Your task to perform on an android device: open app "Adobe Acrobat Reader: Edit PDF" (install if not already installed), go to login, and select forgot password Image 0: 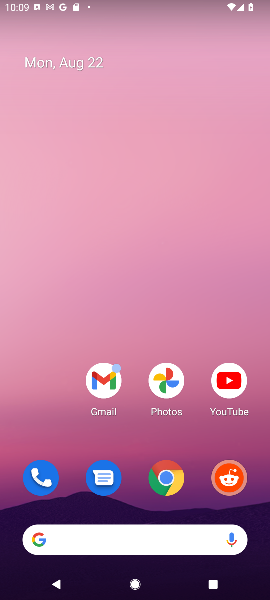
Step 0: drag from (130, 512) to (127, 80)
Your task to perform on an android device: open app "Adobe Acrobat Reader: Edit PDF" (install if not already installed), go to login, and select forgot password Image 1: 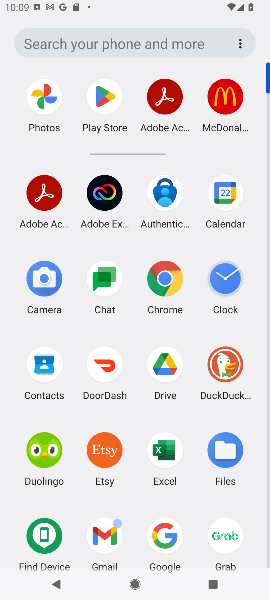
Step 1: click (160, 112)
Your task to perform on an android device: open app "Adobe Acrobat Reader: Edit PDF" (install if not already installed), go to login, and select forgot password Image 2: 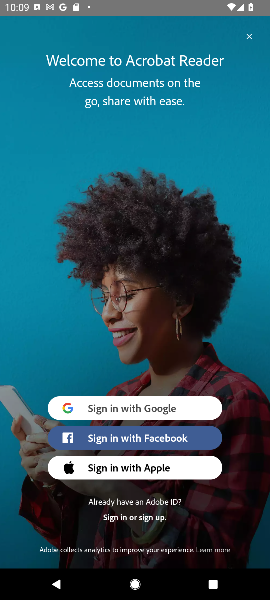
Step 2: click (251, 31)
Your task to perform on an android device: open app "Adobe Acrobat Reader: Edit PDF" (install if not already installed), go to login, and select forgot password Image 3: 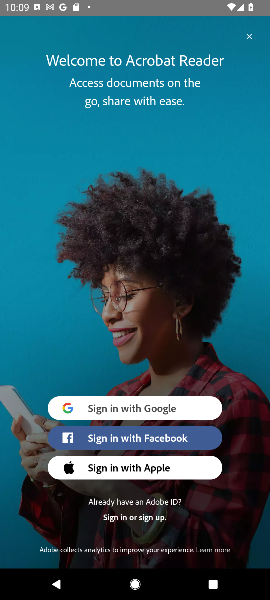
Step 3: task complete